Your task to perform on an android device: Search for sushi restaurants on Maps Image 0: 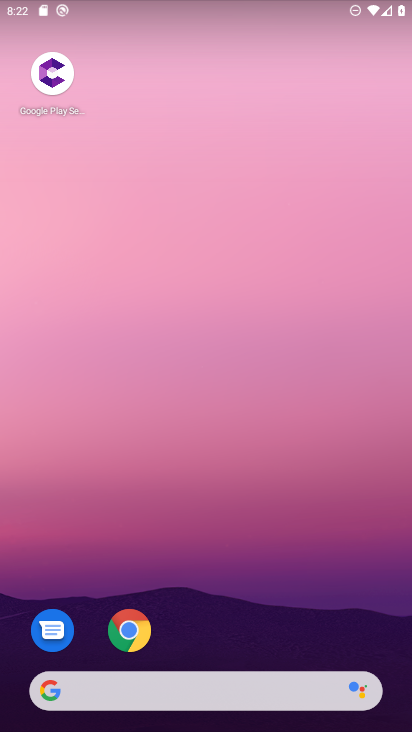
Step 0: drag from (225, 595) to (223, 21)
Your task to perform on an android device: Search for sushi restaurants on Maps Image 1: 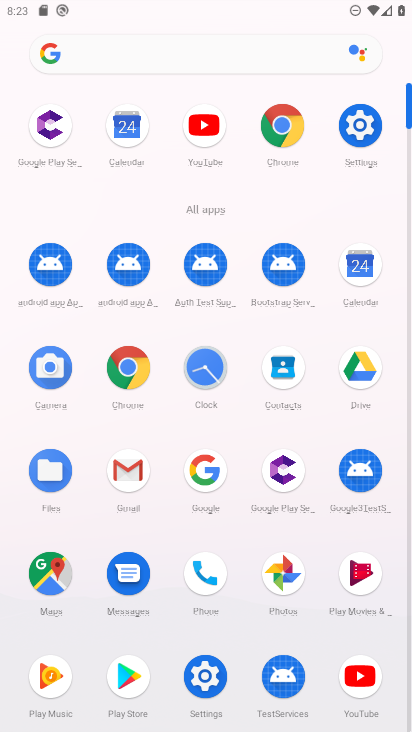
Step 1: click (33, 574)
Your task to perform on an android device: Search for sushi restaurants on Maps Image 2: 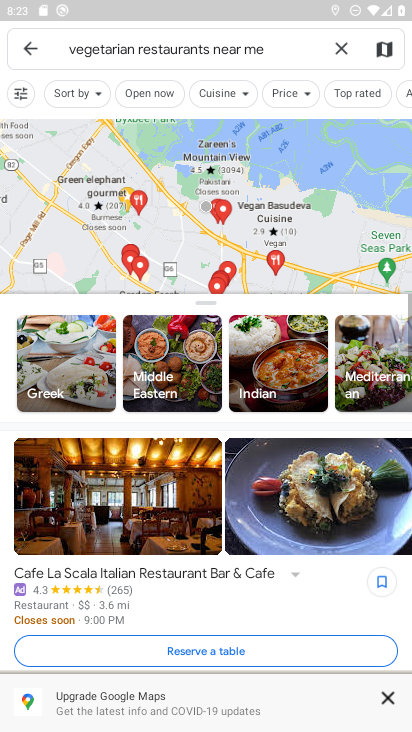
Step 2: click (340, 51)
Your task to perform on an android device: Search for sushi restaurants on Maps Image 3: 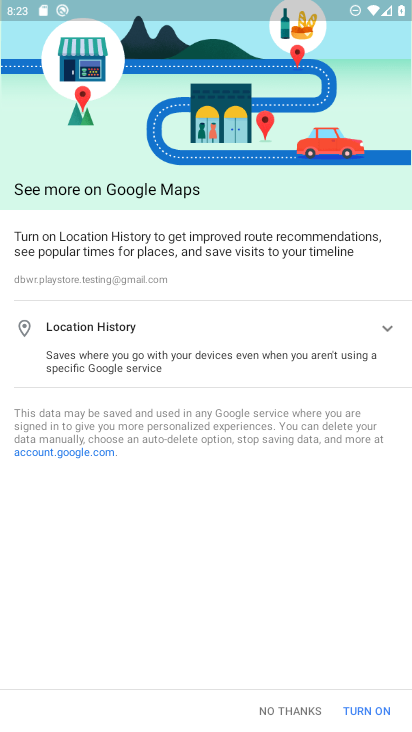
Step 3: click (285, 713)
Your task to perform on an android device: Search for sushi restaurants on Maps Image 4: 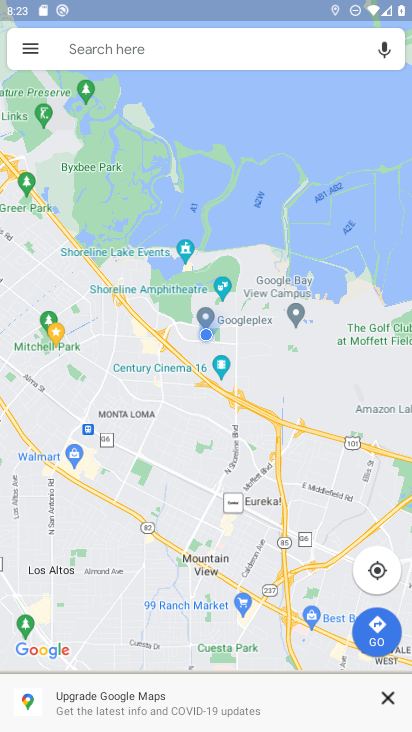
Step 4: click (205, 42)
Your task to perform on an android device: Search for sushi restaurants on Maps Image 5: 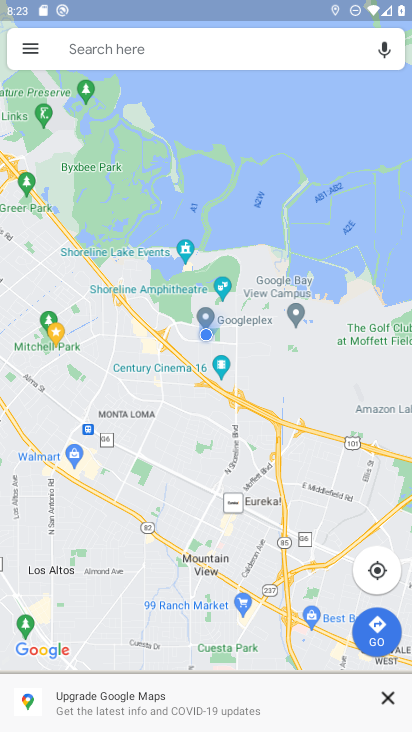
Step 5: click (205, 42)
Your task to perform on an android device: Search for sushi restaurants on Maps Image 6: 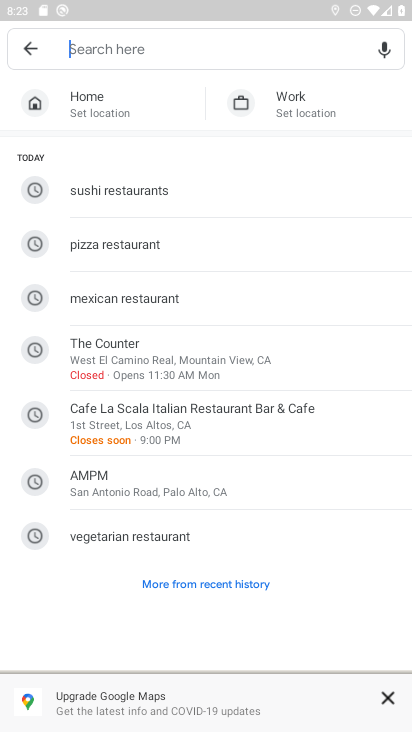
Step 6: click (205, 42)
Your task to perform on an android device: Search for sushi restaurants on Maps Image 7: 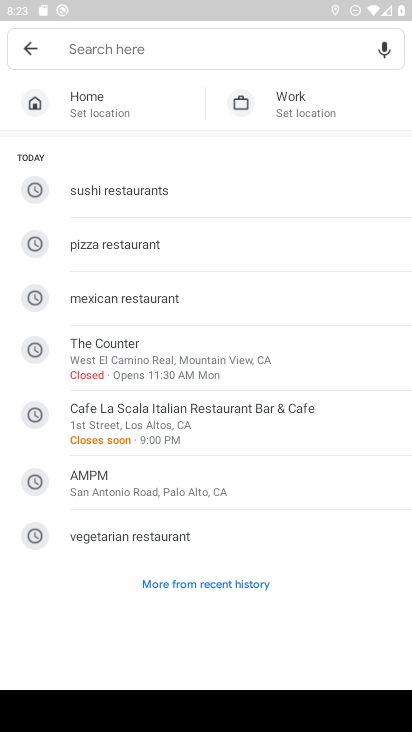
Step 7: type "sushi restaurants"
Your task to perform on an android device: Search for sushi restaurants on Maps Image 8: 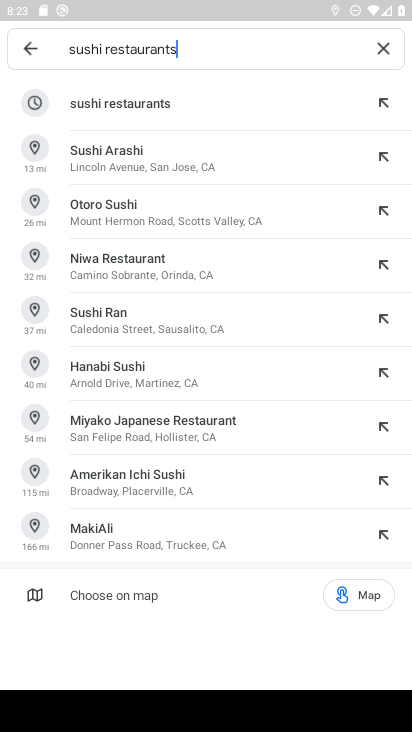
Step 8: click (194, 105)
Your task to perform on an android device: Search for sushi restaurants on Maps Image 9: 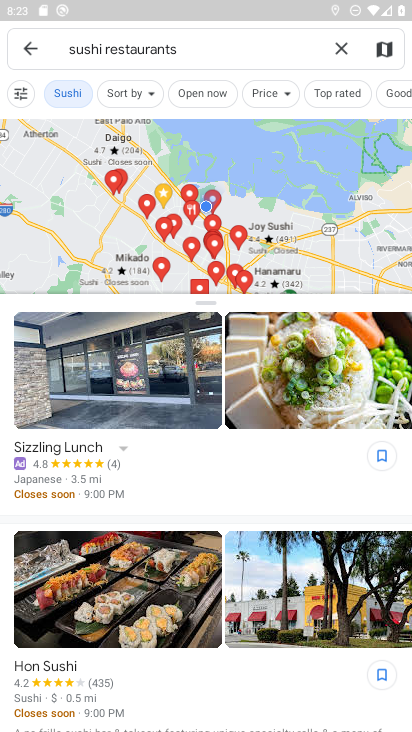
Step 9: task complete